Your task to perform on an android device: turn pop-ups off in chrome Image 0: 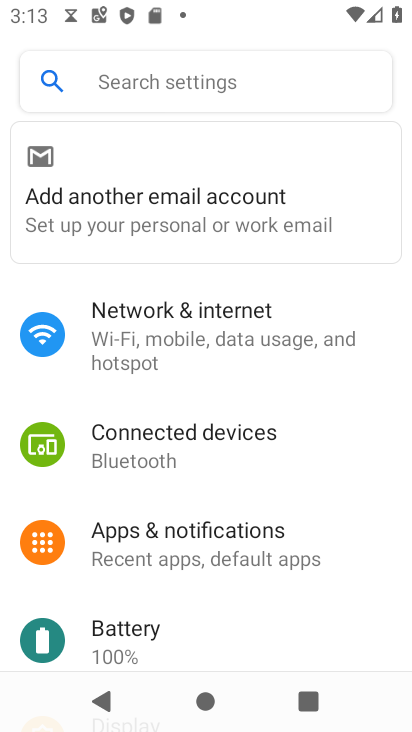
Step 0: press home button
Your task to perform on an android device: turn pop-ups off in chrome Image 1: 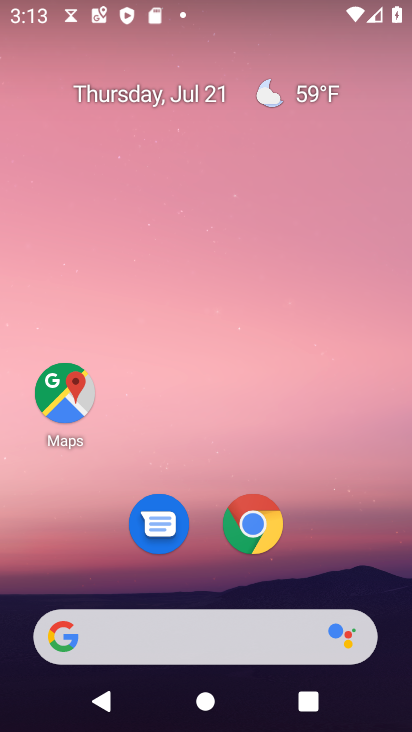
Step 1: click (246, 530)
Your task to perform on an android device: turn pop-ups off in chrome Image 2: 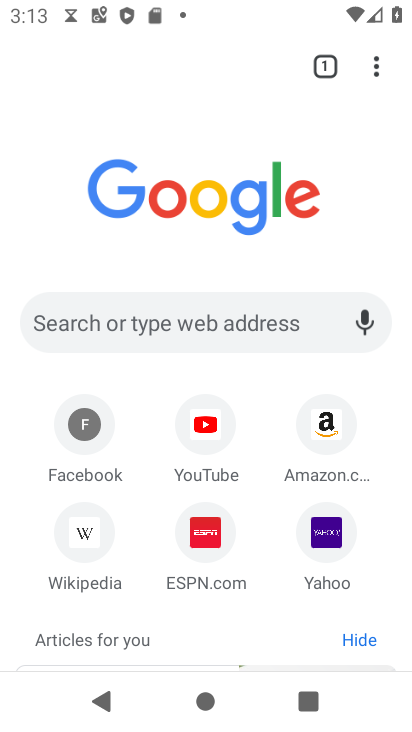
Step 2: drag from (371, 63) to (241, 546)
Your task to perform on an android device: turn pop-ups off in chrome Image 3: 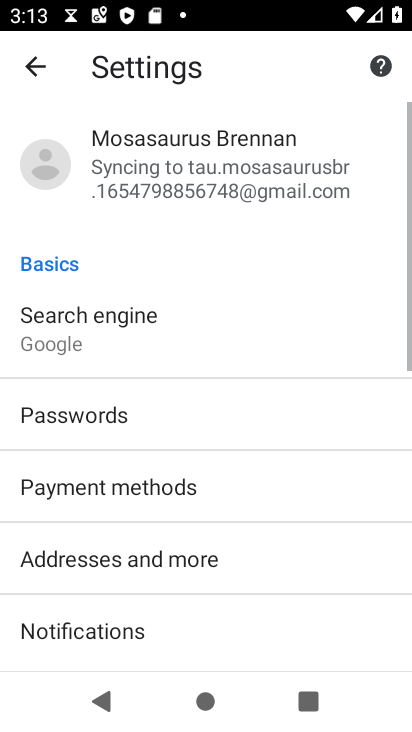
Step 3: drag from (223, 630) to (347, 52)
Your task to perform on an android device: turn pop-ups off in chrome Image 4: 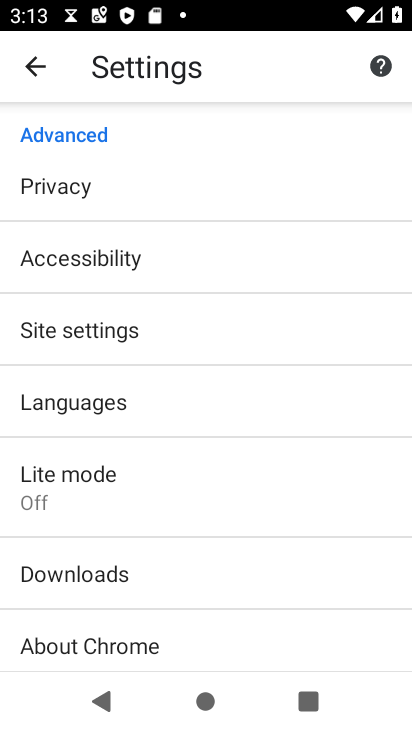
Step 4: click (109, 334)
Your task to perform on an android device: turn pop-ups off in chrome Image 5: 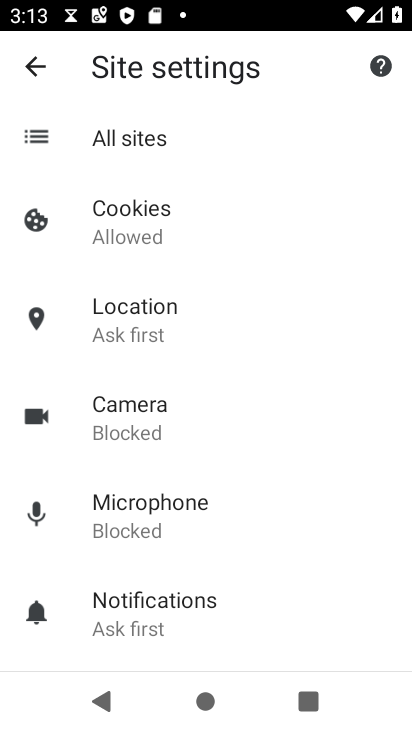
Step 5: drag from (228, 479) to (300, 160)
Your task to perform on an android device: turn pop-ups off in chrome Image 6: 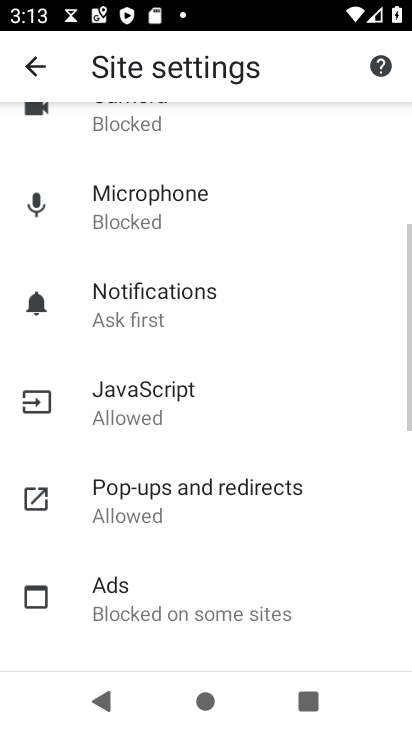
Step 6: click (166, 507)
Your task to perform on an android device: turn pop-ups off in chrome Image 7: 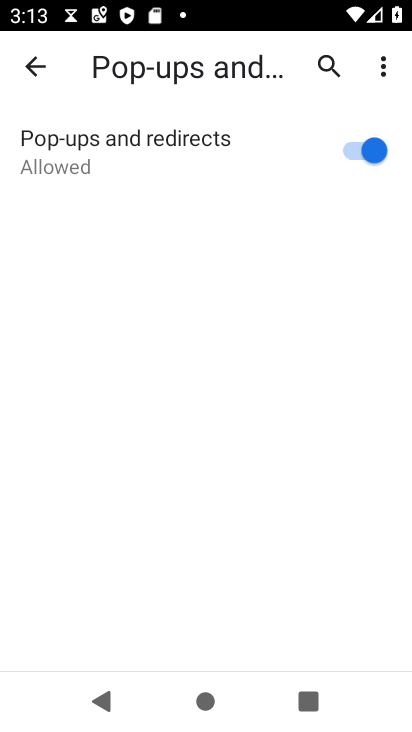
Step 7: click (347, 149)
Your task to perform on an android device: turn pop-ups off in chrome Image 8: 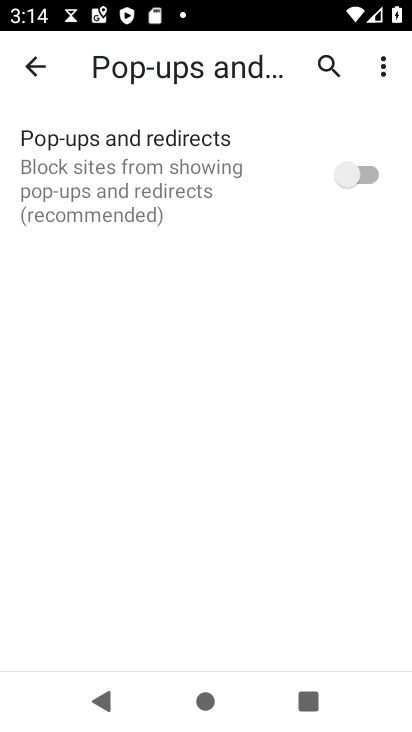
Step 8: task complete